Your task to perform on an android device: change notifications settings Image 0: 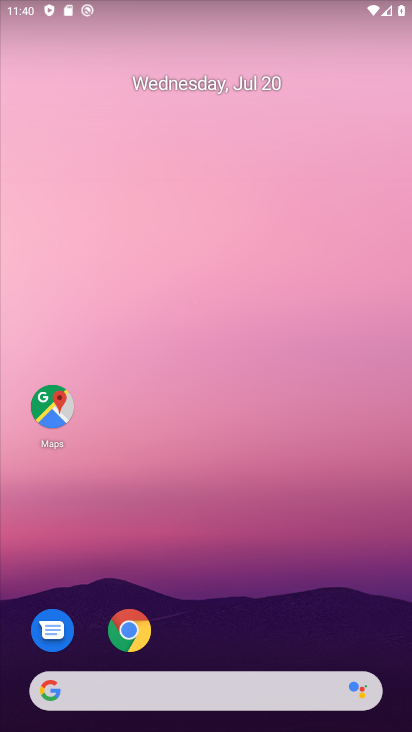
Step 0: click (345, 0)
Your task to perform on an android device: change notifications settings Image 1: 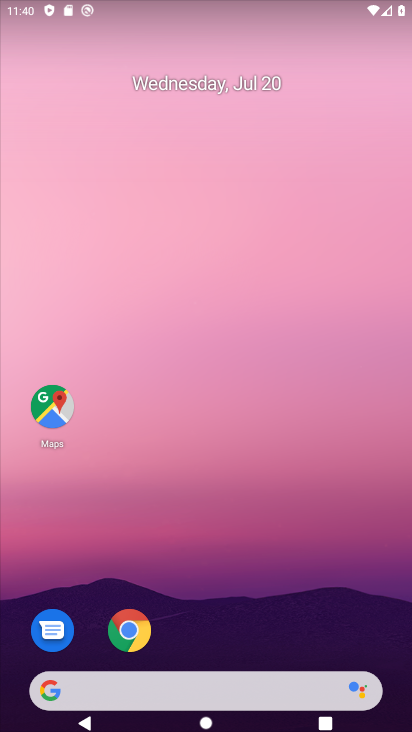
Step 1: drag from (164, 328) to (133, 93)
Your task to perform on an android device: change notifications settings Image 2: 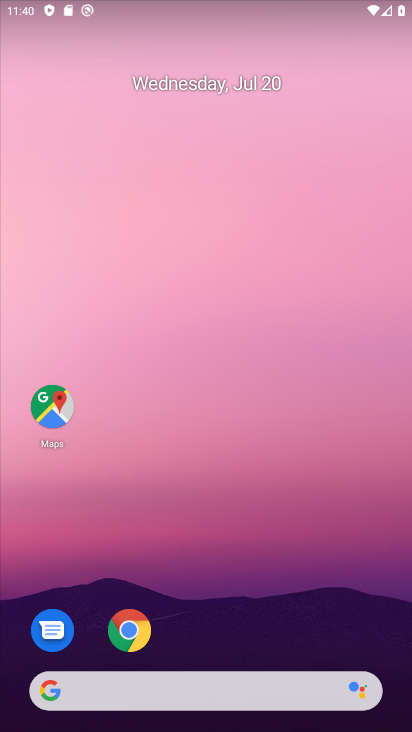
Step 2: drag from (173, 600) to (173, 70)
Your task to perform on an android device: change notifications settings Image 3: 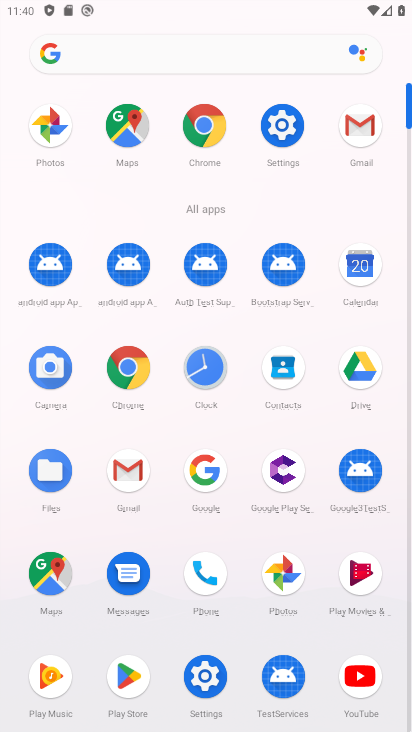
Step 3: click (203, 680)
Your task to perform on an android device: change notifications settings Image 4: 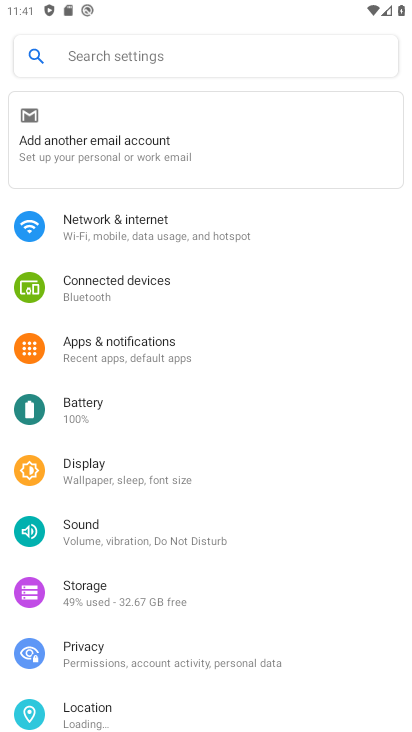
Step 4: click (99, 341)
Your task to perform on an android device: change notifications settings Image 5: 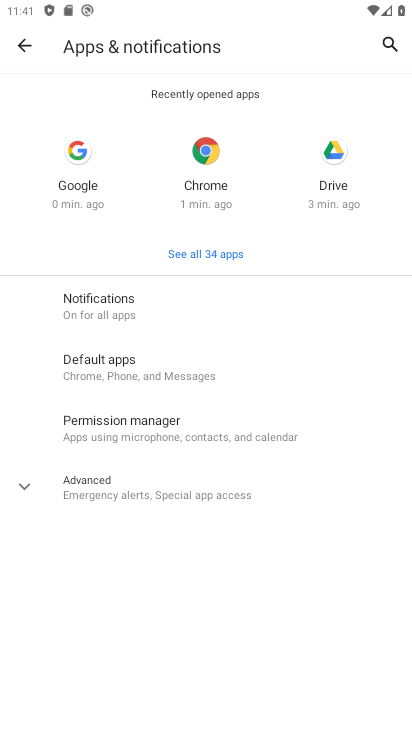
Step 5: click (113, 309)
Your task to perform on an android device: change notifications settings Image 6: 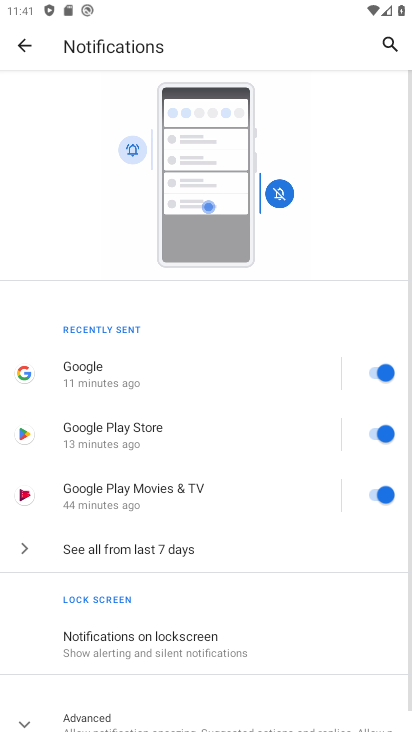
Step 6: drag from (159, 550) to (221, 215)
Your task to perform on an android device: change notifications settings Image 7: 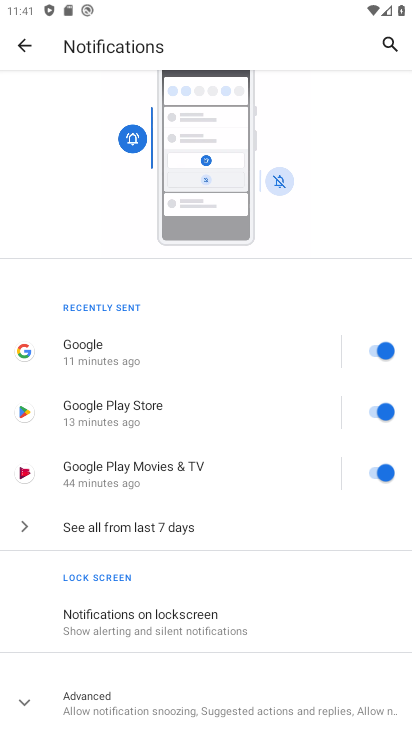
Step 7: click (375, 409)
Your task to perform on an android device: change notifications settings Image 8: 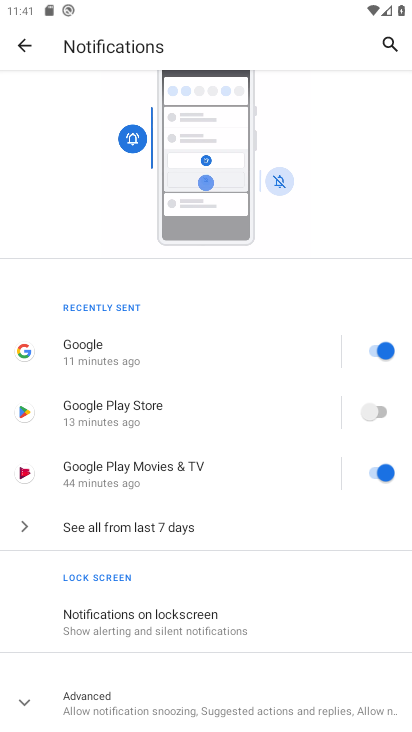
Step 8: task complete